Your task to perform on an android device: turn off sleep mode Image 0: 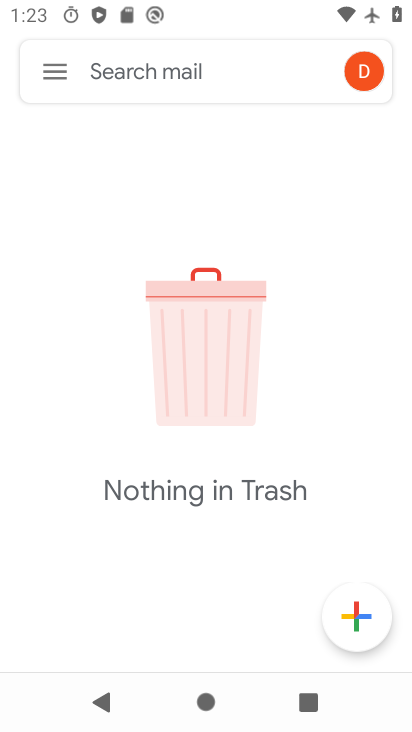
Step 0: press home button
Your task to perform on an android device: turn off sleep mode Image 1: 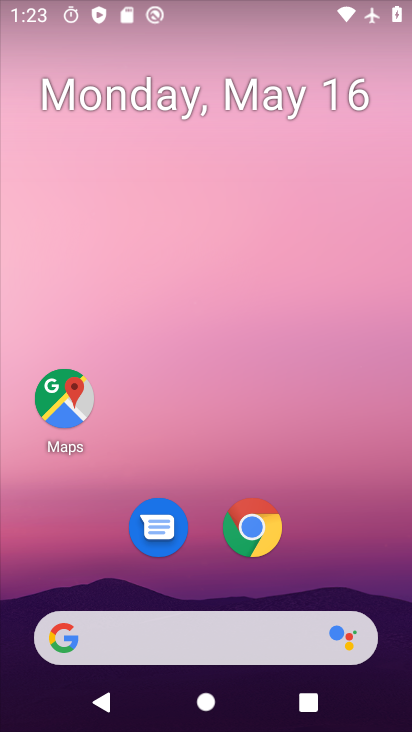
Step 1: drag from (179, 625) to (295, 214)
Your task to perform on an android device: turn off sleep mode Image 2: 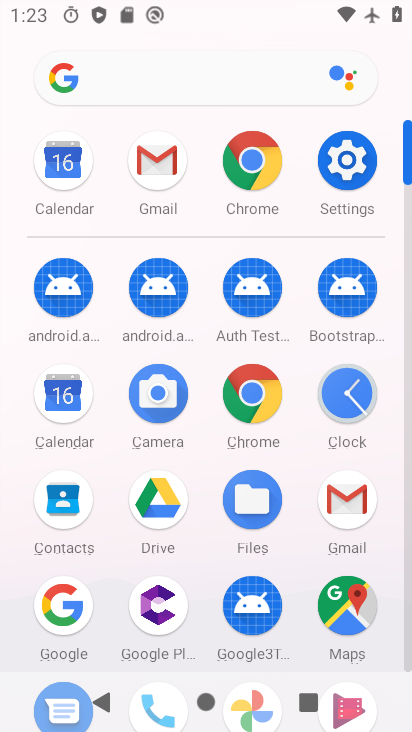
Step 2: click (353, 166)
Your task to perform on an android device: turn off sleep mode Image 3: 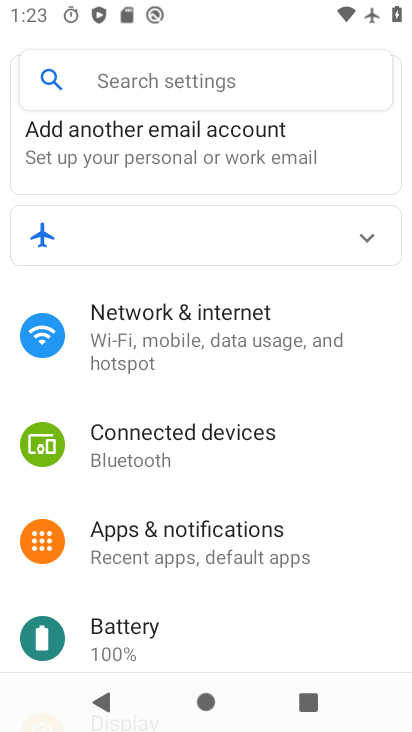
Step 3: drag from (207, 620) to (291, 330)
Your task to perform on an android device: turn off sleep mode Image 4: 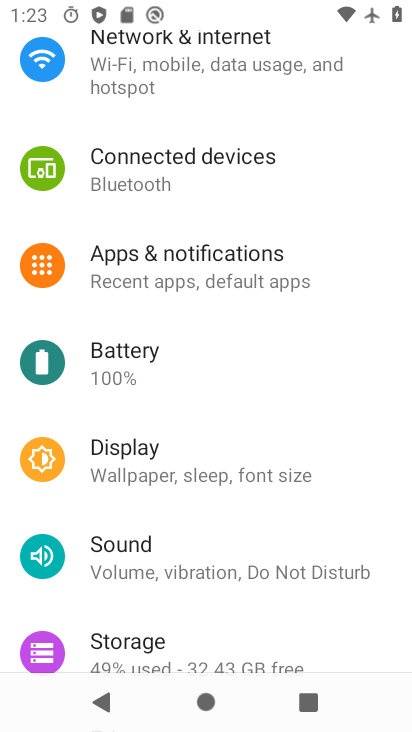
Step 4: click (222, 473)
Your task to perform on an android device: turn off sleep mode Image 5: 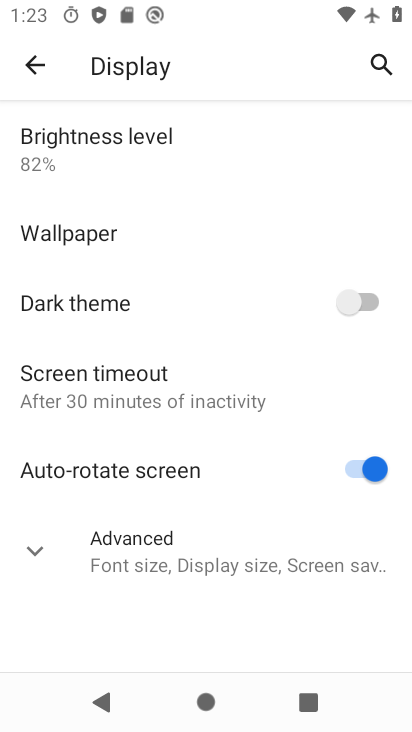
Step 5: task complete